Your task to perform on an android device: turn on the 12-hour format for clock Image 0: 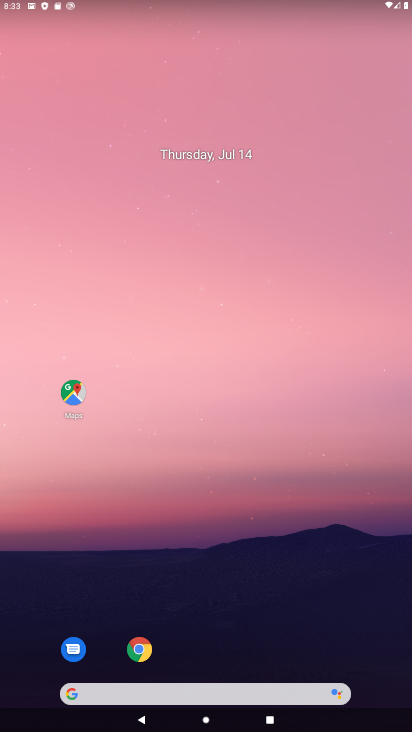
Step 0: drag from (300, 582) to (319, 7)
Your task to perform on an android device: turn on the 12-hour format for clock Image 1: 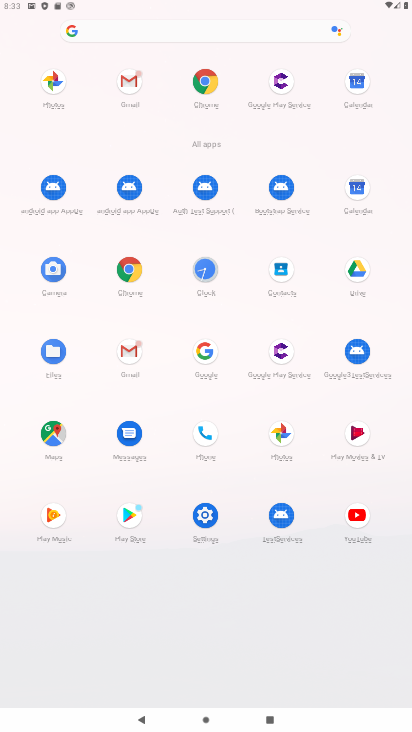
Step 1: click (214, 273)
Your task to perform on an android device: turn on the 12-hour format for clock Image 2: 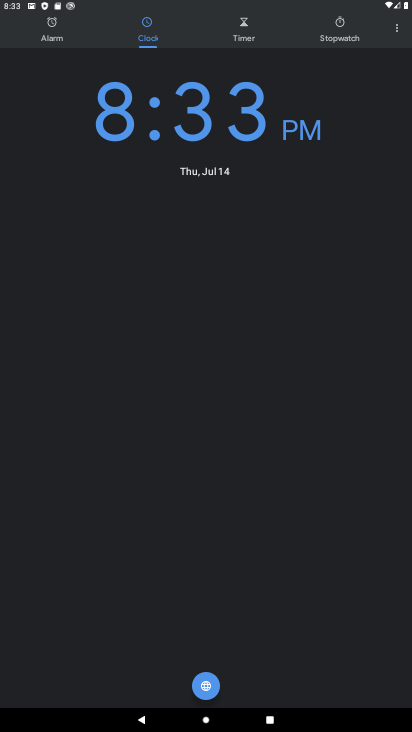
Step 2: click (398, 35)
Your task to perform on an android device: turn on the 12-hour format for clock Image 3: 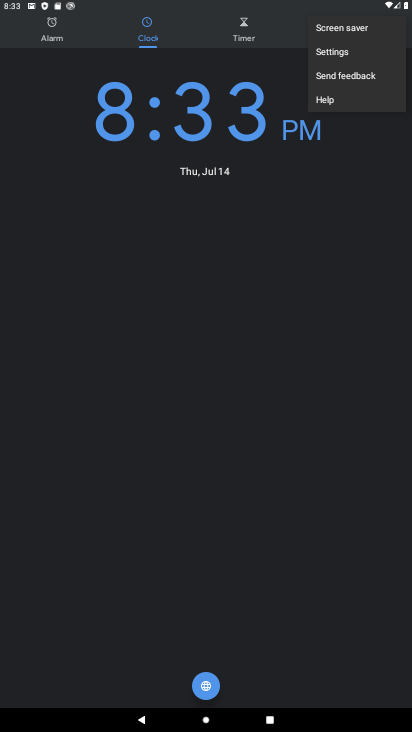
Step 3: click (340, 53)
Your task to perform on an android device: turn on the 12-hour format for clock Image 4: 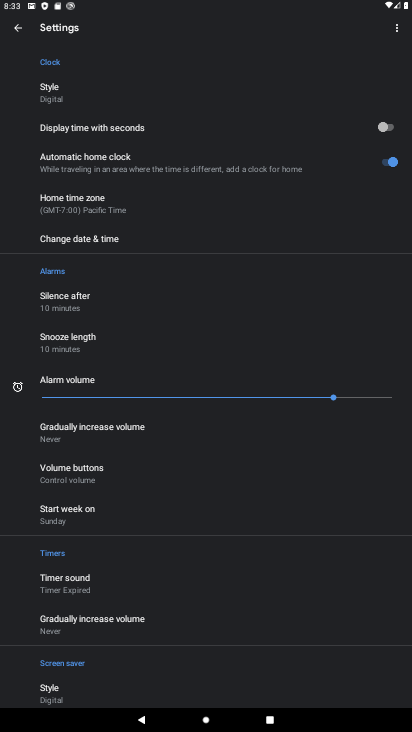
Step 4: click (97, 243)
Your task to perform on an android device: turn on the 12-hour format for clock Image 5: 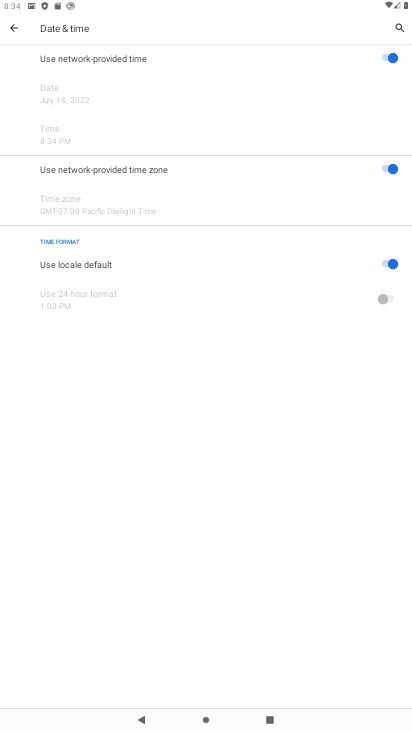
Step 5: task complete